Your task to perform on an android device: check the backup settings in the google photos Image 0: 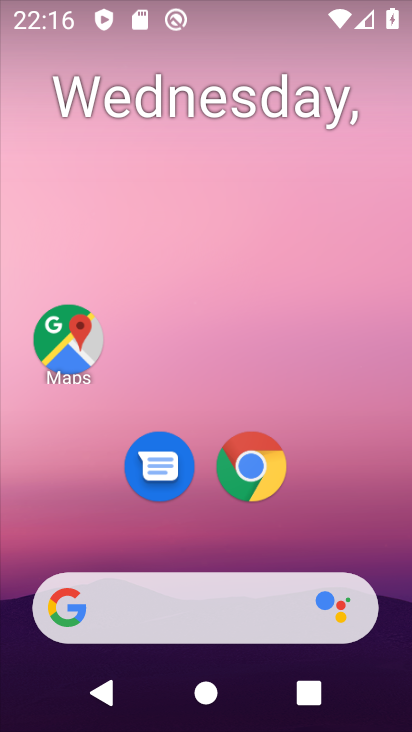
Step 0: drag from (210, 489) to (231, 2)
Your task to perform on an android device: check the backup settings in the google photos Image 1: 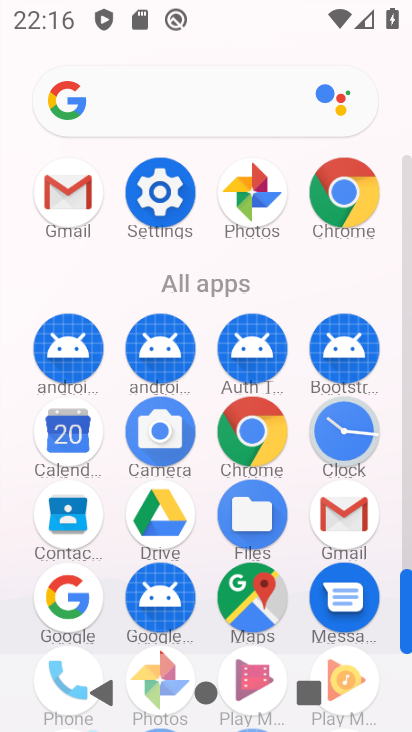
Step 1: drag from (204, 549) to (225, 160)
Your task to perform on an android device: check the backup settings in the google photos Image 2: 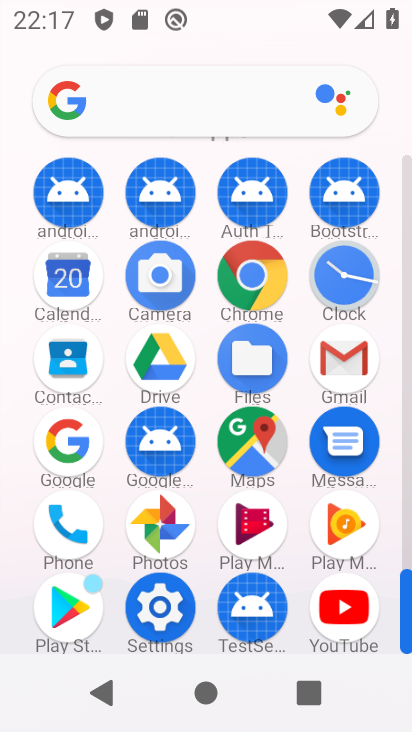
Step 2: click (160, 519)
Your task to perform on an android device: check the backup settings in the google photos Image 3: 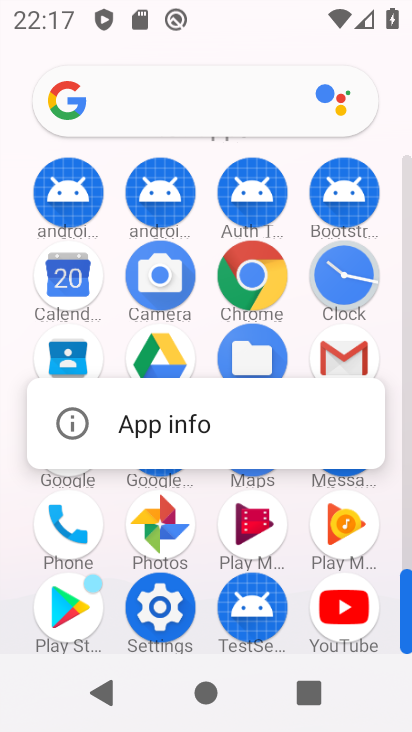
Step 3: click (160, 519)
Your task to perform on an android device: check the backup settings in the google photos Image 4: 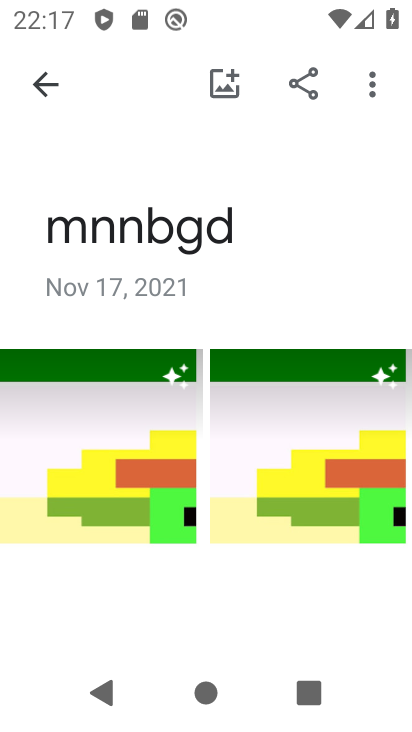
Step 4: click (51, 76)
Your task to perform on an android device: check the backup settings in the google photos Image 5: 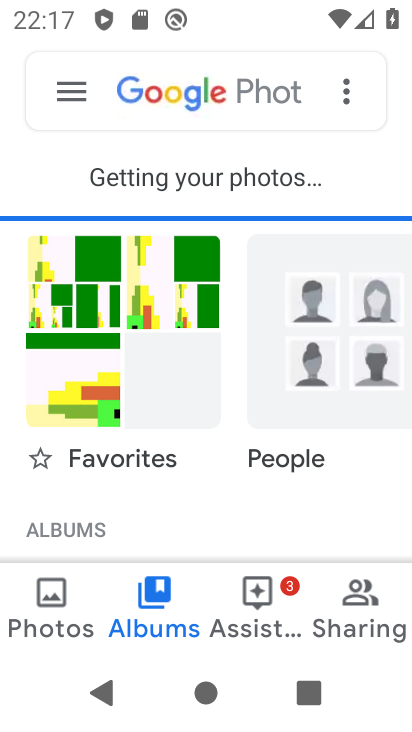
Step 5: click (346, 84)
Your task to perform on an android device: check the backup settings in the google photos Image 6: 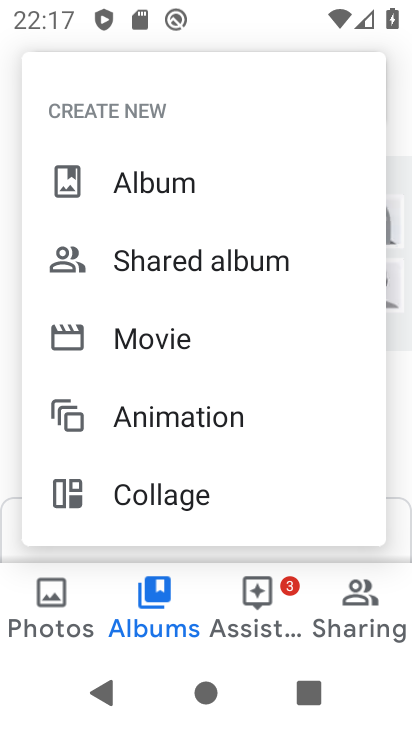
Step 6: click (50, 602)
Your task to perform on an android device: check the backup settings in the google photos Image 7: 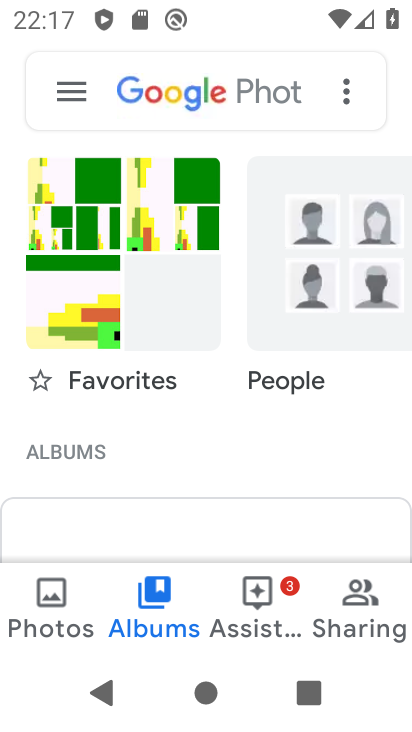
Step 7: click (50, 599)
Your task to perform on an android device: check the backup settings in the google photos Image 8: 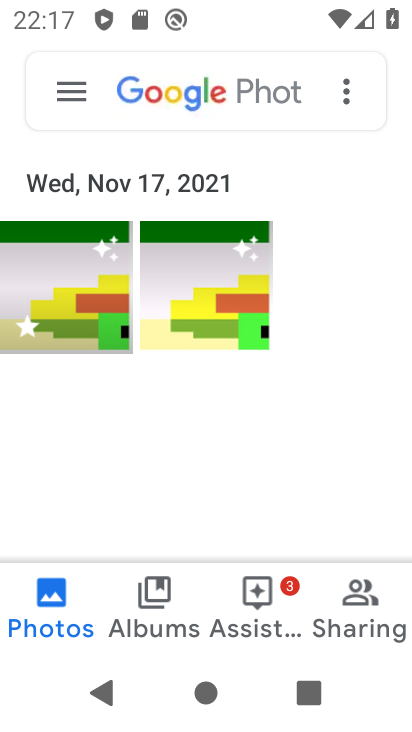
Step 8: click (345, 88)
Your task to perform on an android device: check the backup settings in the google photos Image 9: 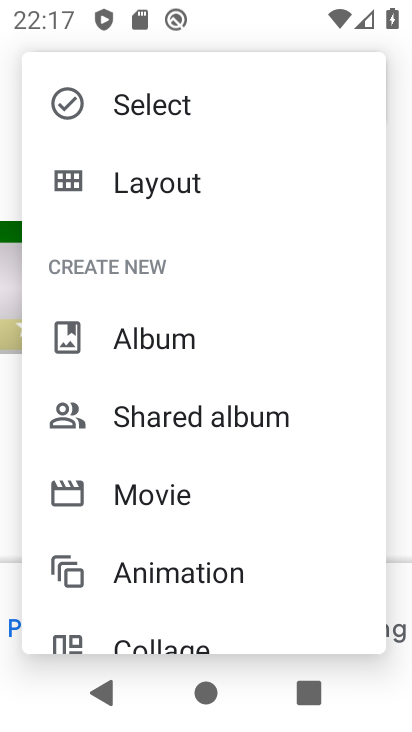
Step 9: click (398, 345)
Your task to perform on an android device: check the backup settings in the google photos Image 10: 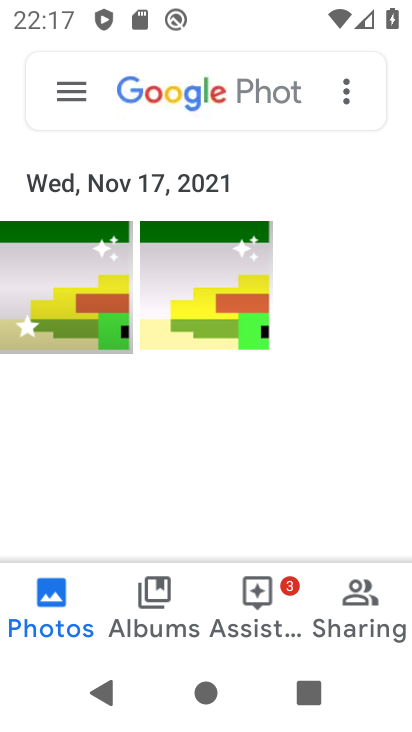
Step 10: click (66, 90)
Your task to perform on an android device: check the backup settings in the google photos Image 11: 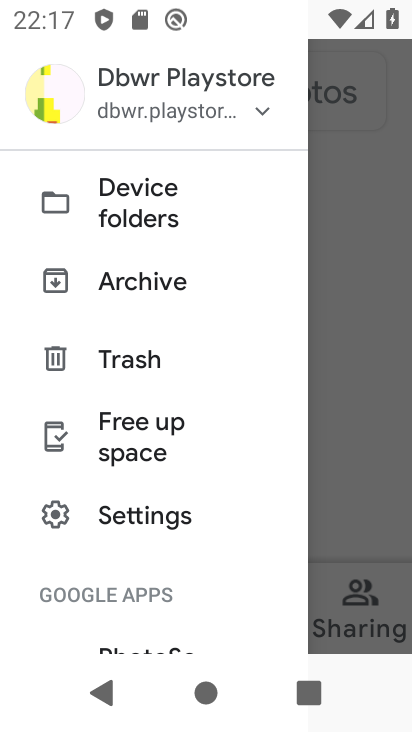
Step 11: click (92, 516)
Your task to perform on an android device: check the backup settings in the google photos Image 12: 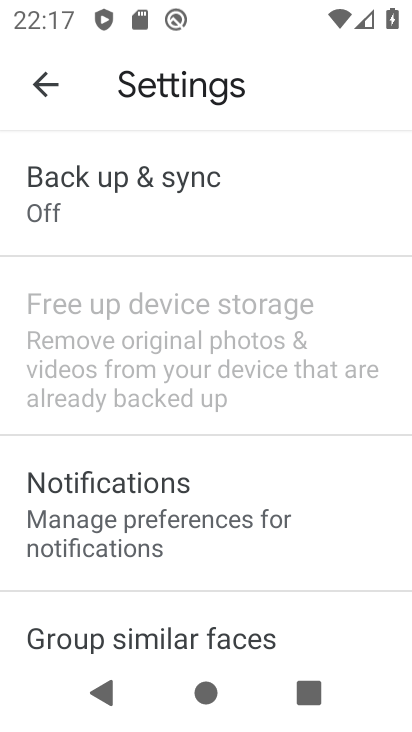
Step 12: click (121, 212)
Your task to perform on an android device: check the backup settings in the google photos Image 13: 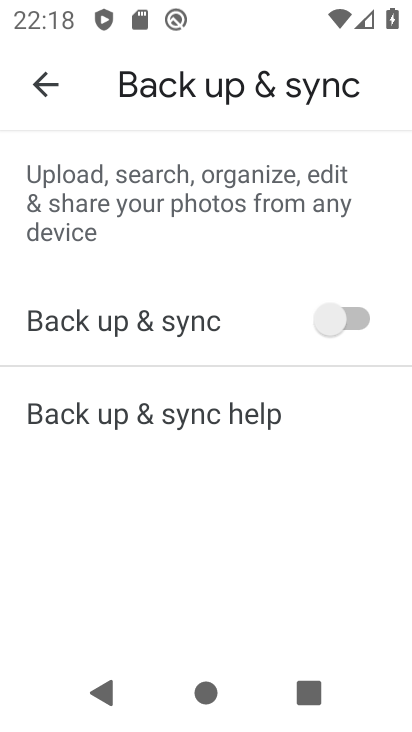
Step 13: click (345, 309)
Your task to perform on an android device: check the backup settings in the google photos Image 14: 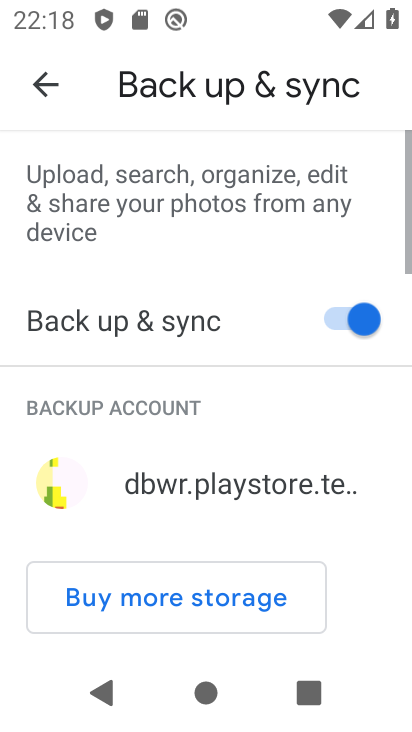
Step 14: task complete